Your task to perform on an android device: Open location settings Image 0: 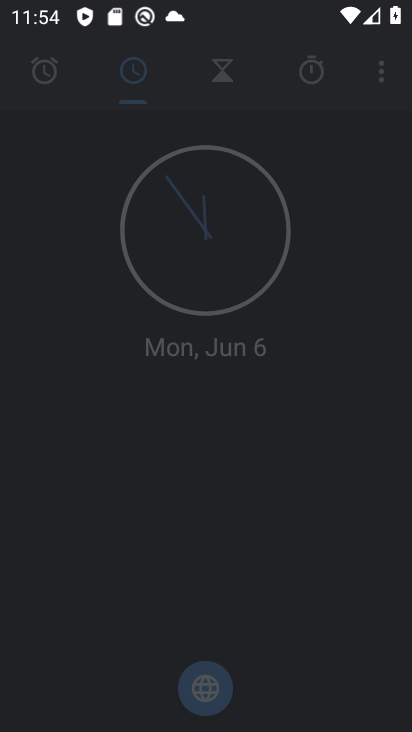
Step 0: drag from (329, 589) to (314, 17)
Your task to perform on an android device: Open location settings Image 1: 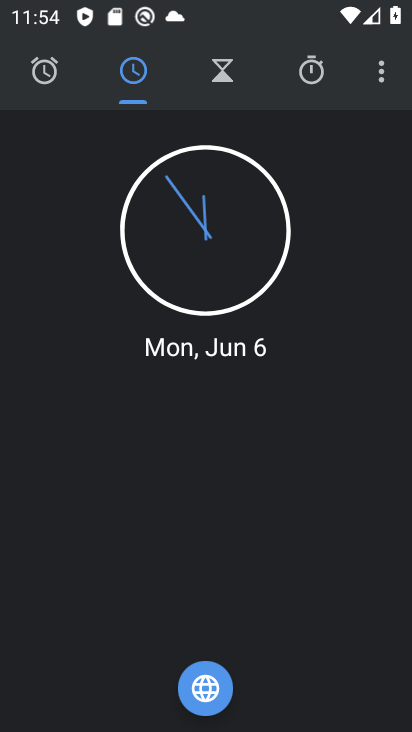
Step 1: press home button
Your task to perform on an android device: Open location settings Image 2: 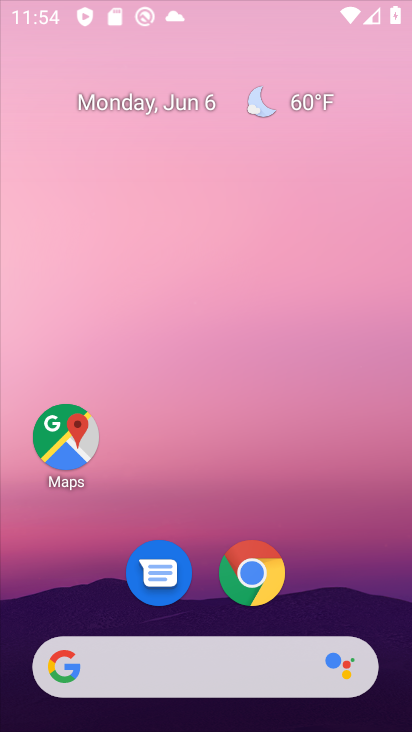
Step 2: drag from (353, 687) to (315, 120)
Your task to perform on an android device: Open location settings Image 3: 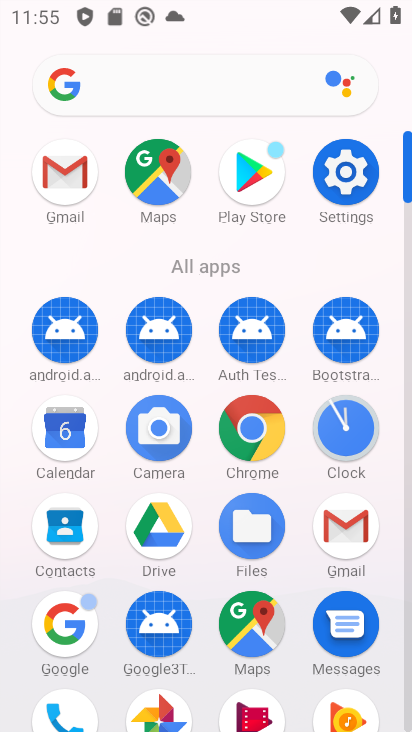
Step 3: click (330, 211)
Your task to perform on an android device: Open location settings Image 4: 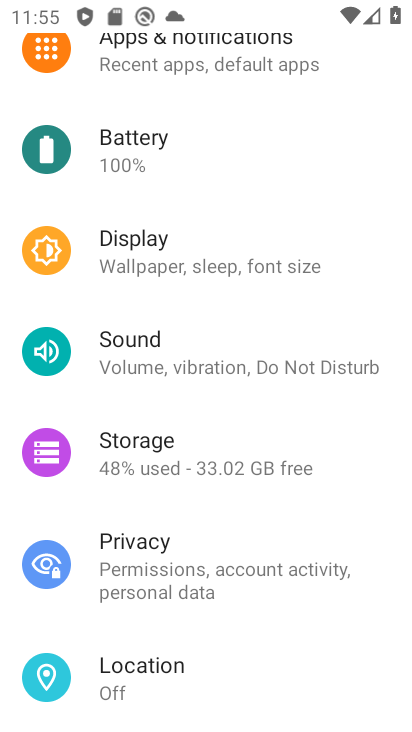
Step 4: click (166, 688)
Your task to perform on an android device: Open location settings Image 5: 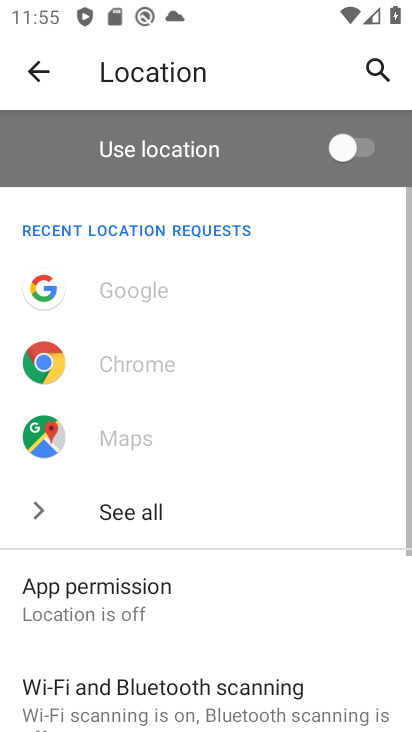
Step 5: task complete